Your task to perform on an android device: delete a single message in the gmail app Image 0: 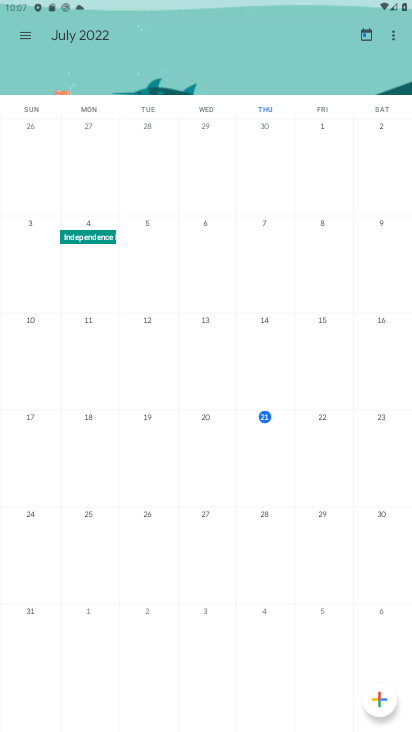
Step 0: task complete